Your task to perform on an android device: Open Youtube and go to the subscriptions tab Image 0: 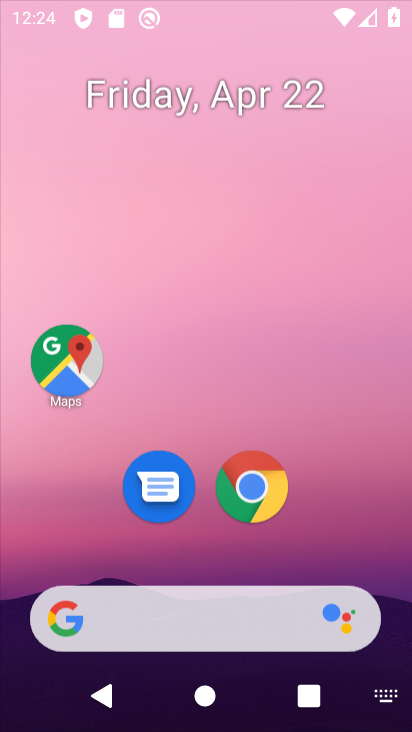
Step 0: drag from (357, 484) to (354, 34)
Your task to perform on an android device: Open Youtube and go to the subscriptions tab Image 1: 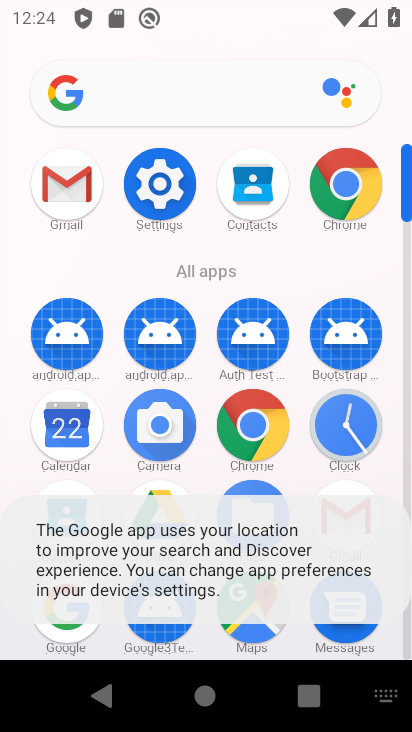
Step 1: click (144, 188)
Your task to perform on an android device: Open Youtube and go to the subscriptions tab Image 2: 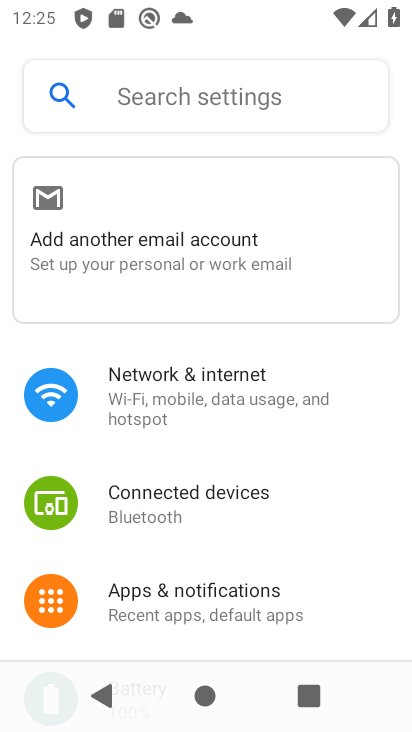
Step 2: press home button
Your task to perform on an android device: Open Youtube and go to the subscriptions tab Image 3: 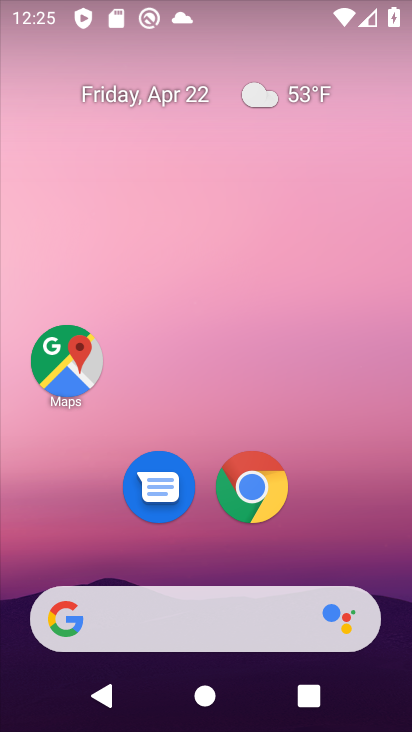
Step 3: drag from (336, 516) to (326, 176)
Your task to perform on an android device: Open Youtube and go to the subscriptions tab Image 4: 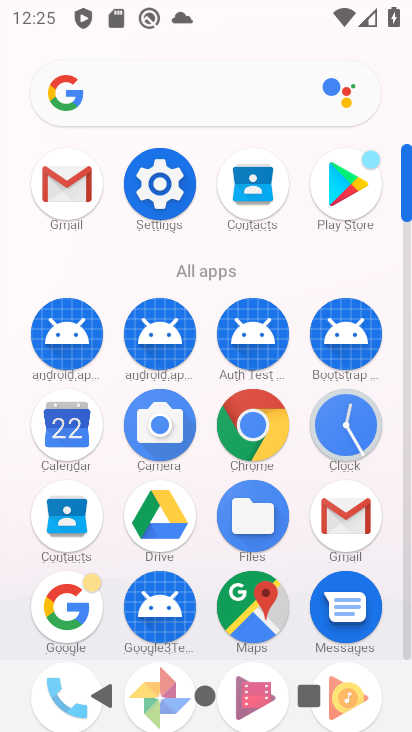
Step 4: drag from (386, 523) to (373, 213)
Your task to perform on an android device: Open Youtube and go to the subscriptions tab Image 5: 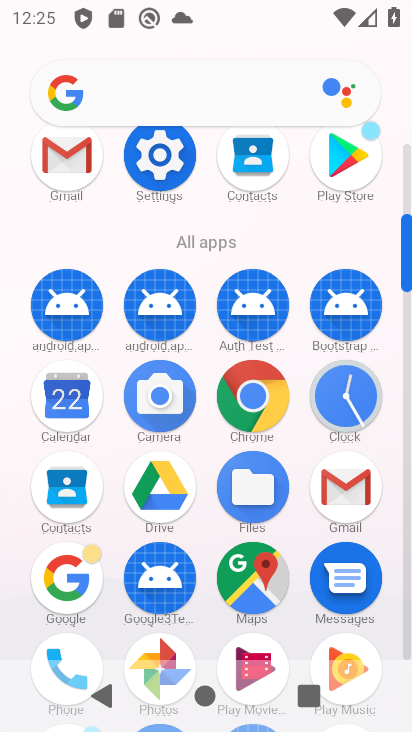
Step 5: drag from (388, 621) to (384, 271)
Your task to perform on an android device: Open Youtube and go to the subscriptions tab Image 6: 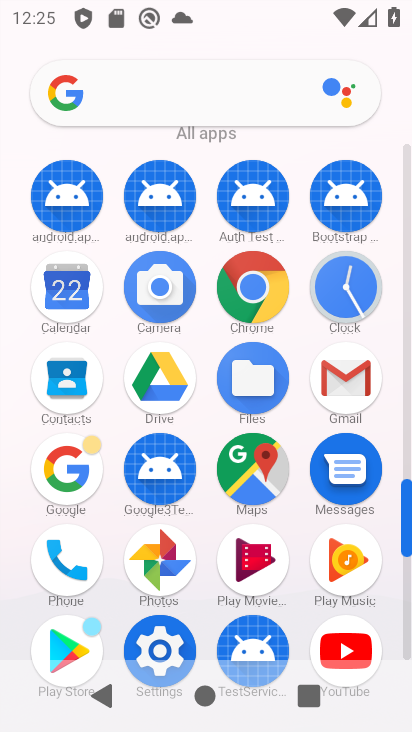
Step 6: click (340, 654)
Your task to perform on an android device: Open Youtube and go to the subscriptions tab Image 7: 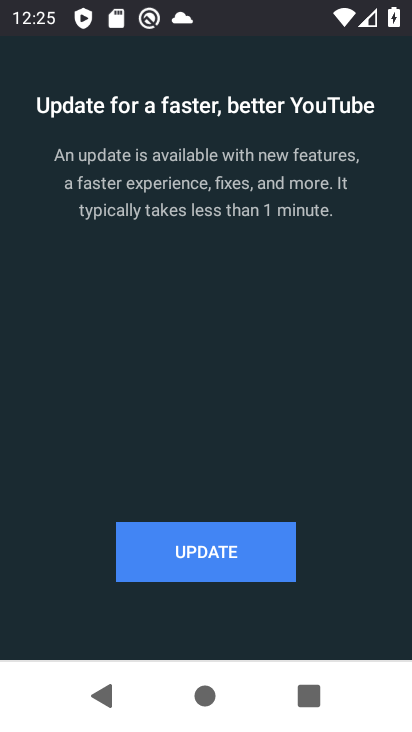
Step 7: click (252, 554)
Your task to perform on an android device: Open Youtube and go to the subscriptions tab Image 8: 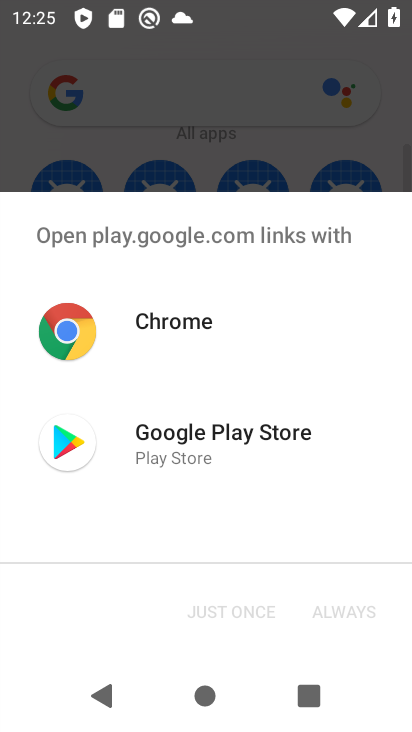
Step 8: click (126, 433)
Your task to perform on an android device: Open Youtube and go to the subscriptions tab Image 9: 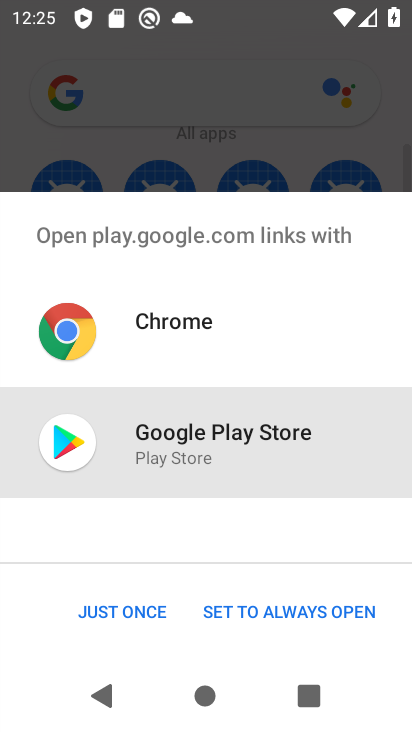
Step 9: click (112, 598)
Your task to perform on an android device: Open Youtube and go to the subscriptions tab Image 10: 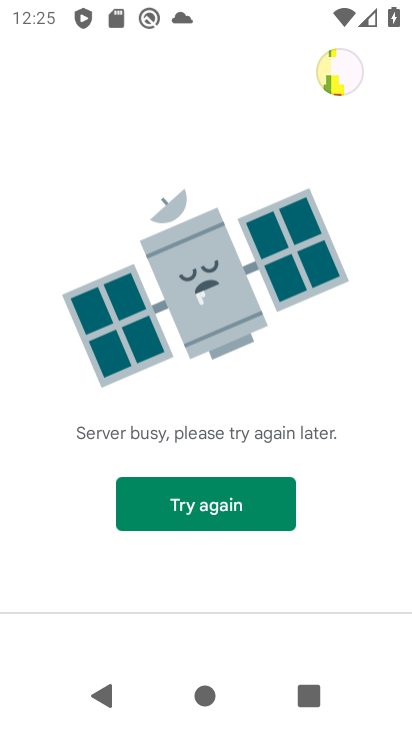
Step 10: click (265, 514)
Your task to perform on an android device: Open Youtube and go to the subscriptions tab Image 11: 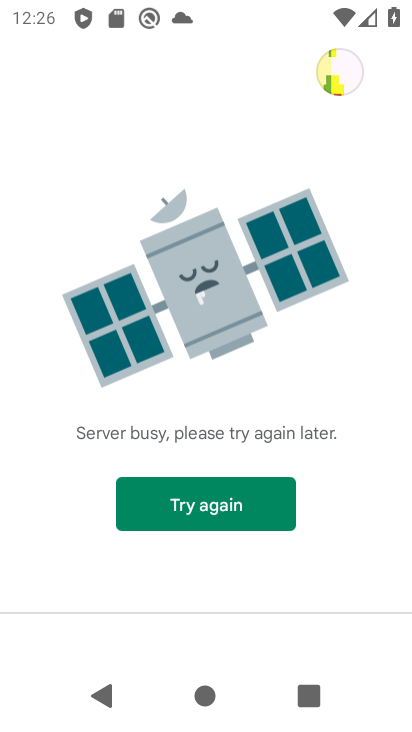
Step 11: task complete